Your task to perform on an android device: check android version Image 0: 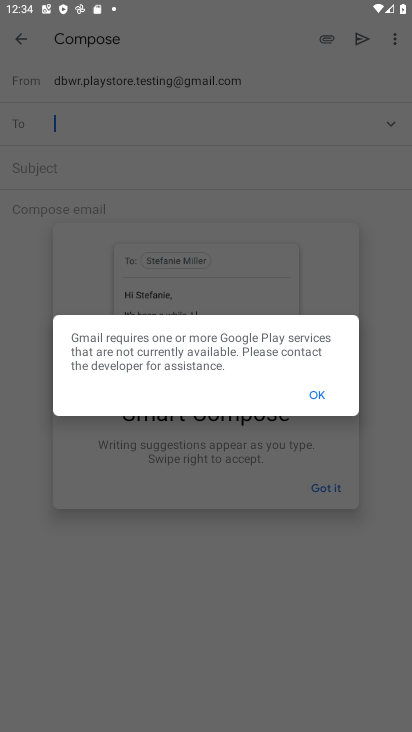
Step 0: press home button
Your task to perform on an android device: check android version Image 1: 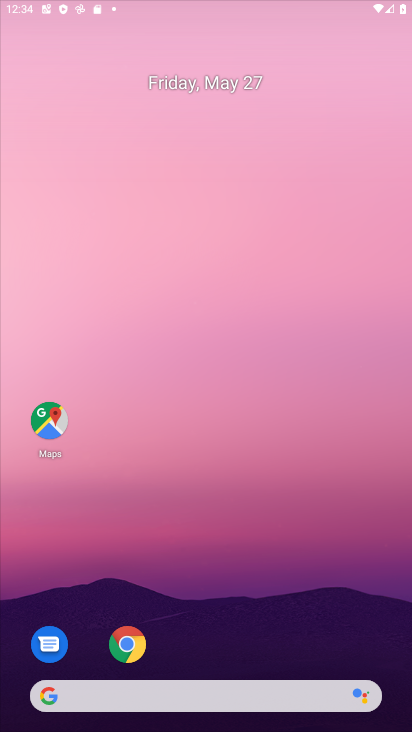
Step 1: drag from (324, 611) to (297, 11)
Your task to perform on an android device: check android version Image 2: 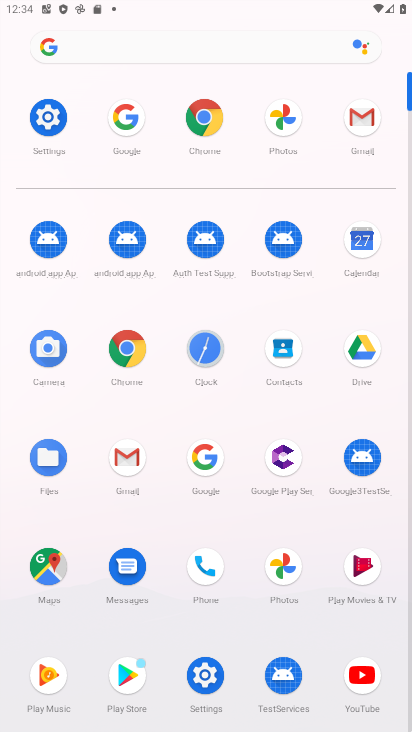
Step 2: click (207, 679)
Your task to perform on an android device: check android version Image 3: 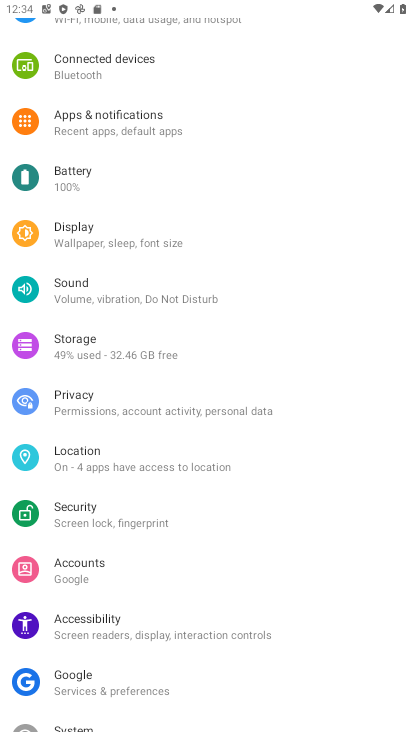
Step 3: drag from (89, 673) to (140, 161)
Your task to perform on an android device: check android version Image 4: 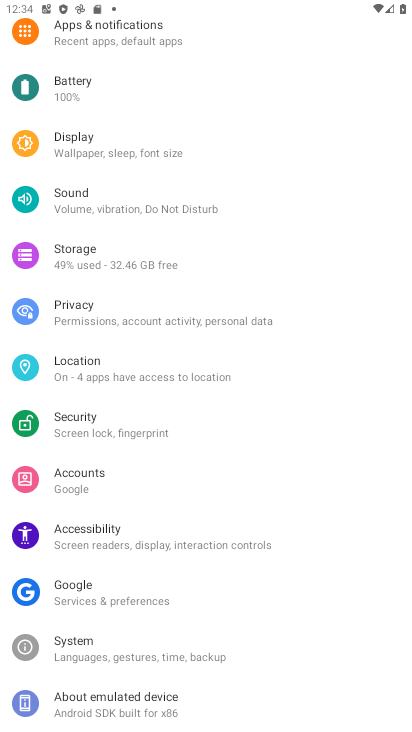
Step 4: click (132, 695)
Your task to perform on an android device: check android version Image 5: 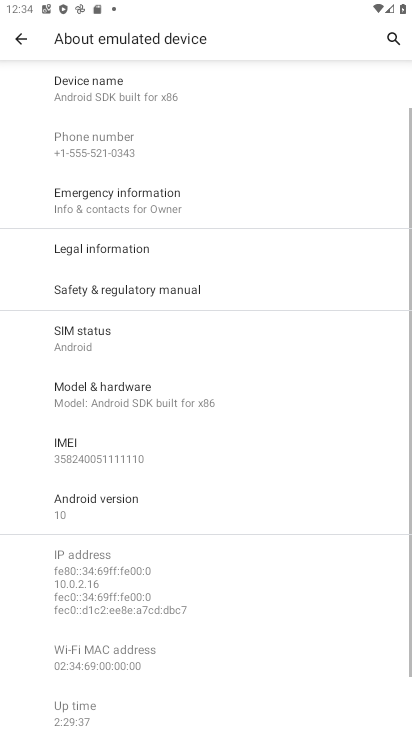
Step 5: click (121, 510)
Your task to perform on an android device: check android version Image 6: 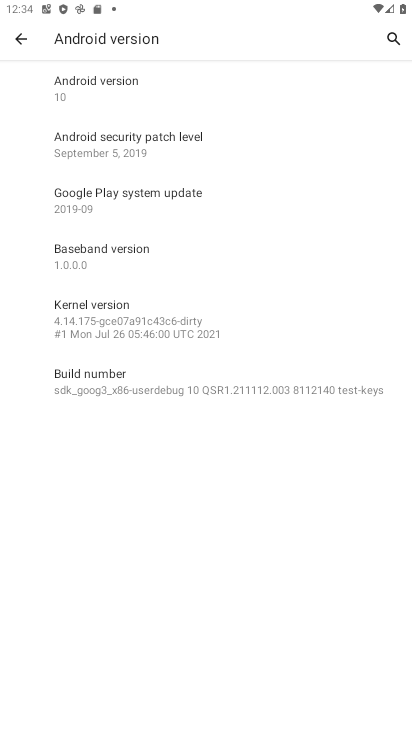
Step 6: task complete